Your task to perform on an android device: Go to display settings Image 0: 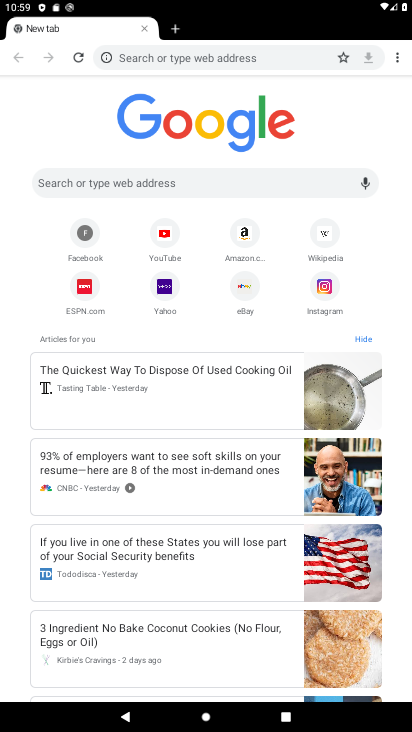
Step 0: press home button
Your task to perform on an android device: Go to display settings Image 1: 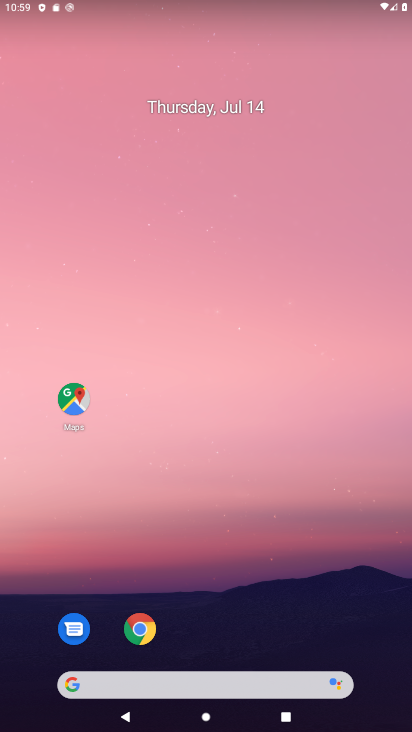
Step 1: drag from (250, 668) to (265, 13)
Your task to perform on an android device: Go to display settings Image 2: 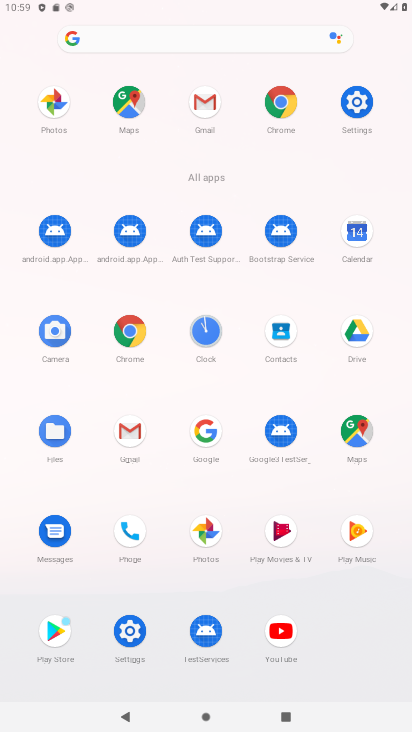
Step 2: click (131, 627)
Your task to perform on an android device: Go to display settings Image 3: 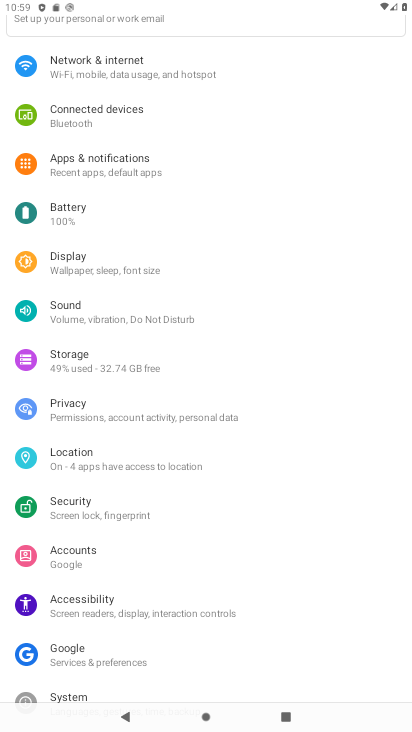
Step 3: click (99, 267)
Your task to perform on an android device: Go to display settings Image 4: 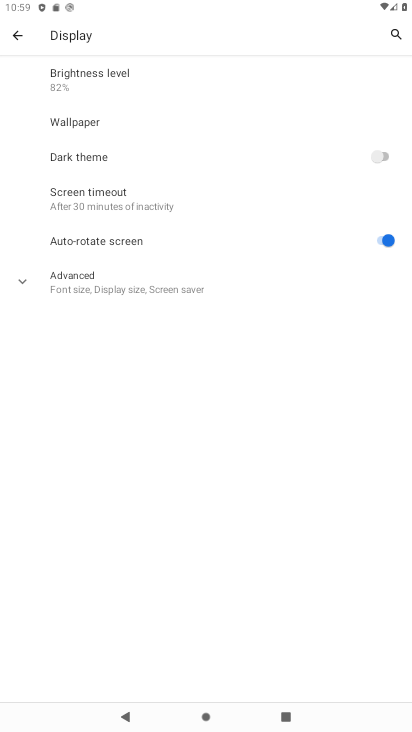
Step 4: task complete